Your task to perform on an android device: Open Google Chrome Image 0: 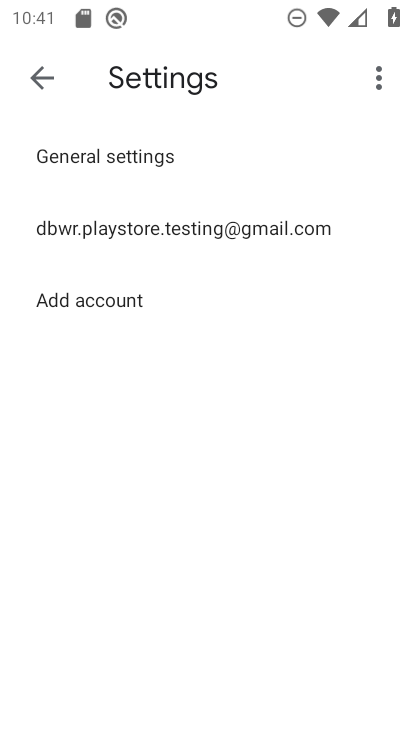
Step 0: press home button
Your task to perform on an android device: Open Google Chrome Image 1: 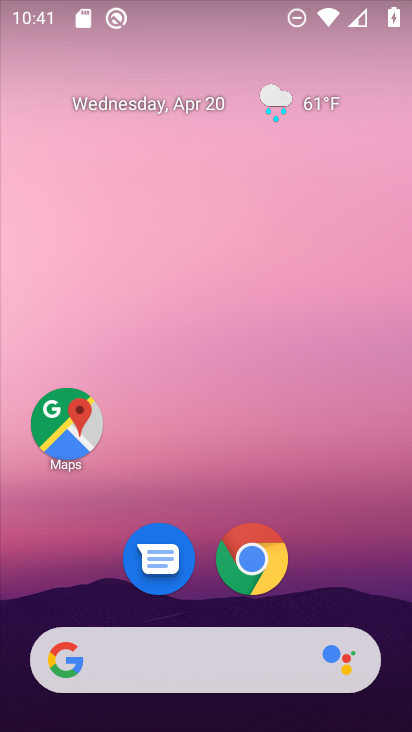
Step 1: click (251, 563)
Your task to perform on an android device: Open Google Chrome Image 2: 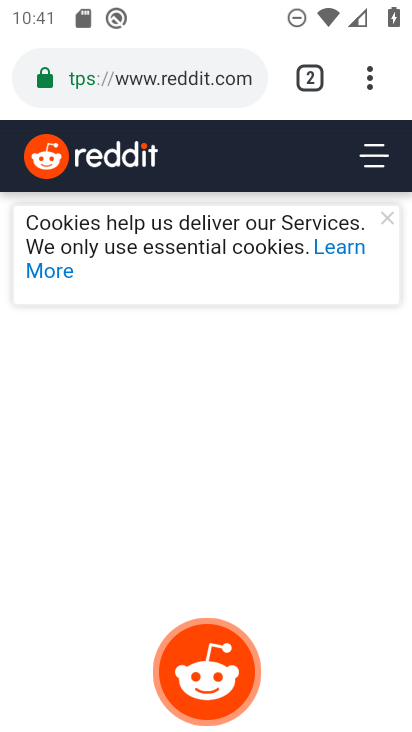
Step 2: task complete